Your task to perform on an android device: Go to CNN.com Image 0: 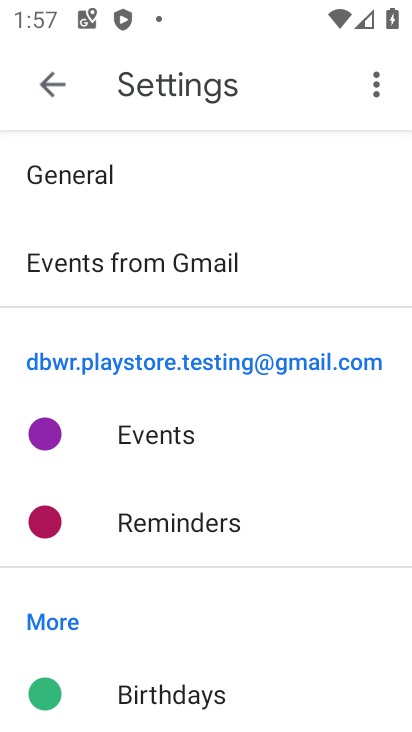
Step 0: press home button
Your task to perform on an android device: Go to CNN.com Image 1: 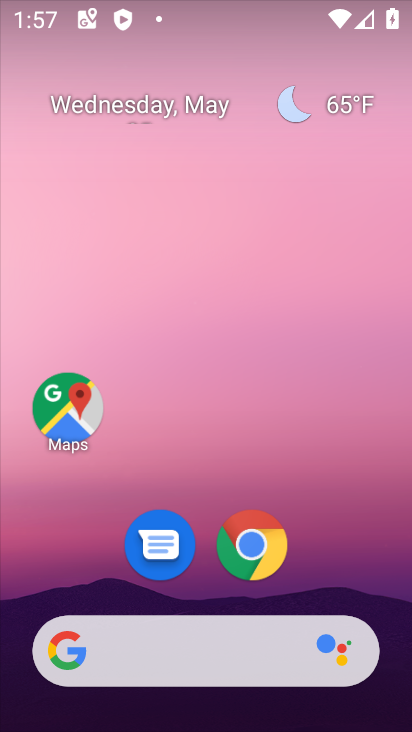
Step 1: click (254, 541)
Your task to perform on an android device: Go to CNN.com Image 2: 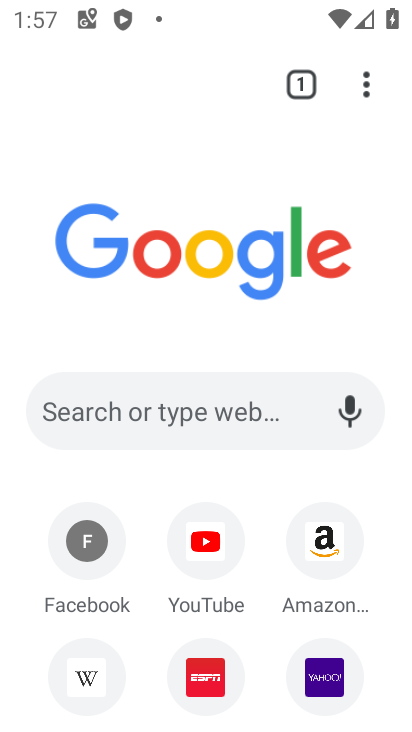
Step 2: click (174, 410)
Your task to perform on an android device: Go to CNN.com Image 3: 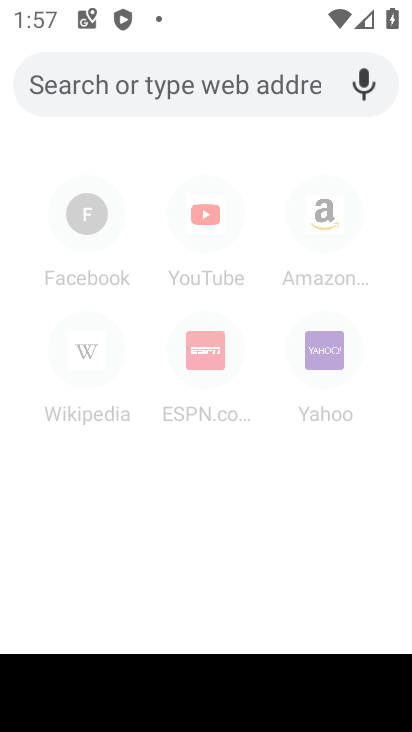
Step 3: type "CNN.com"
Your task to perform on an android device: Go to CNN.com Image 4: 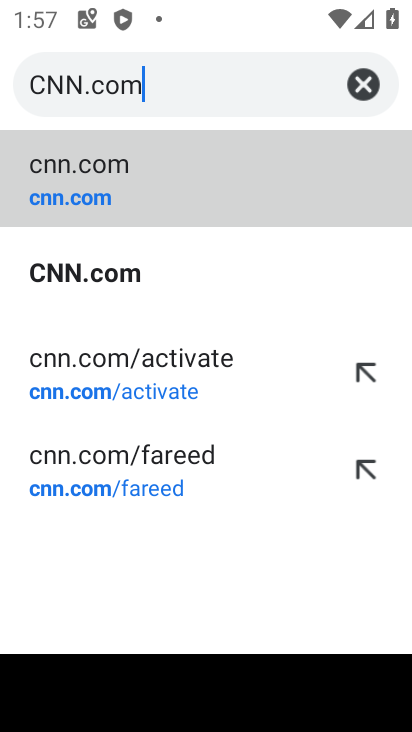
Step 4: click (122, 191)
Your task to perform on an android device: Go to CNN.com Image 5: 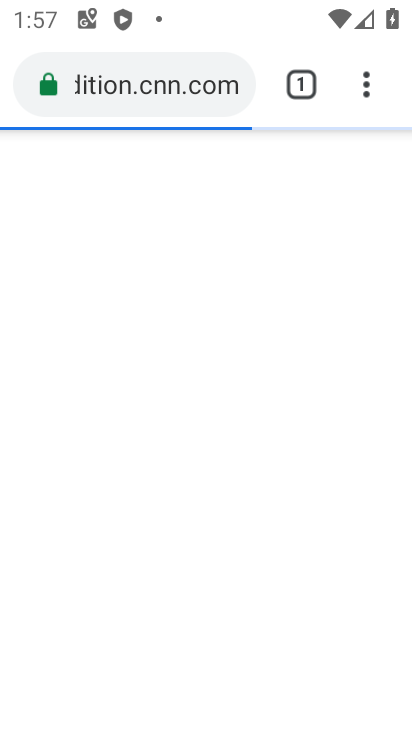
Step 5: task complete